Your task to perform on an android device: show emergency info Image 0: 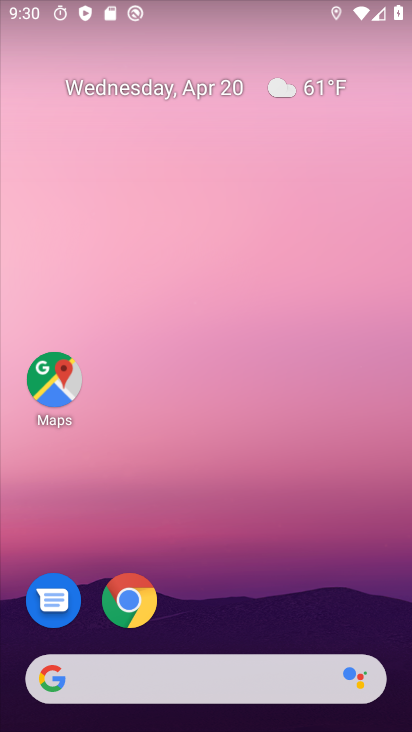
Step 0: drag from (378, 635) to (403, 4)
Your task to perform on an android device: show emergency info Image 1: 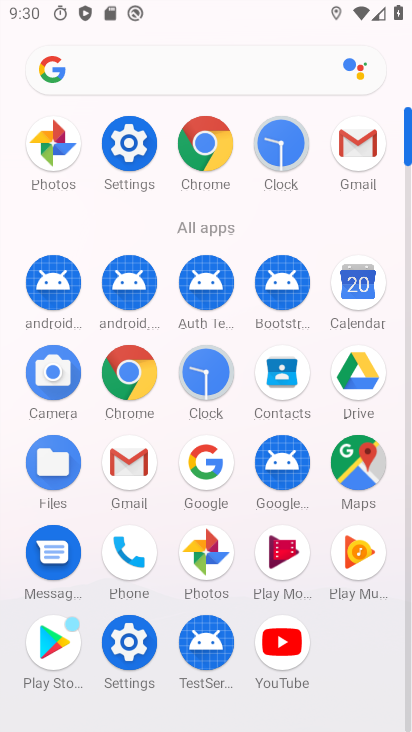
Step 1: click (127, 152)
Your task to perform on an android device: show emergency info Image 2: 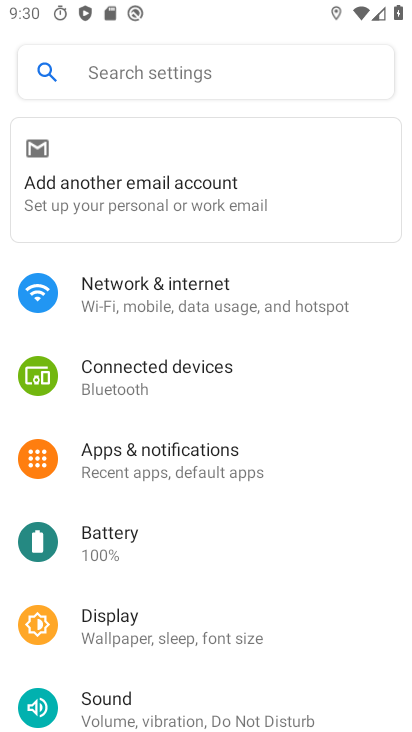
Step 2: drag from (309, 490) to (317, 71)
Your task to perform on an android device: show emergency info Image 3: 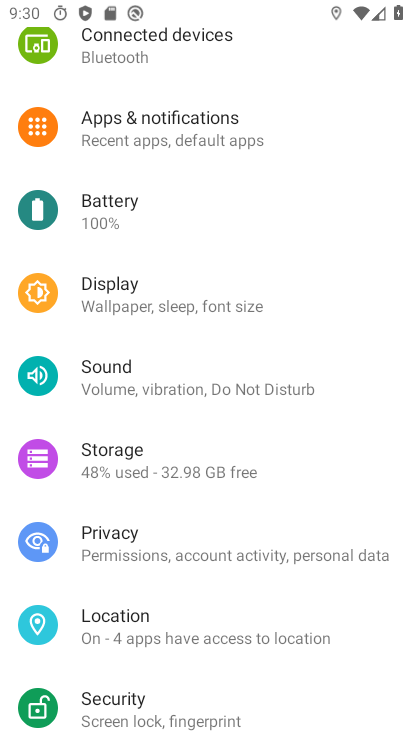
Step 3: drag from (372, 474) to (346, 26)
Your task to perform on an android device: show emergency info Image 4: 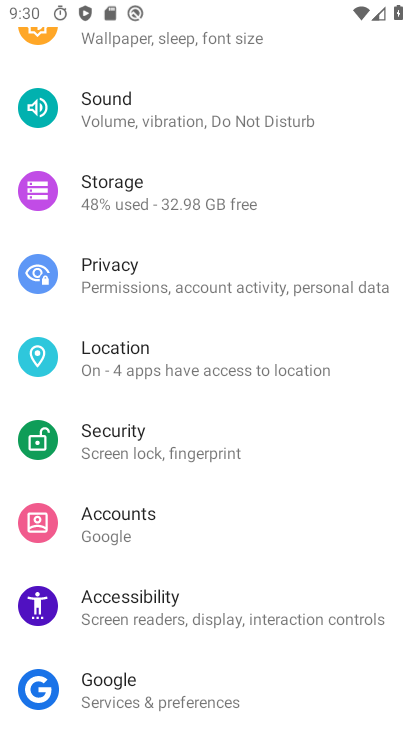
Step 4: drag from (341, 538) to (345, 136)
Your task to perform on an android device: show emergency info Image 5: 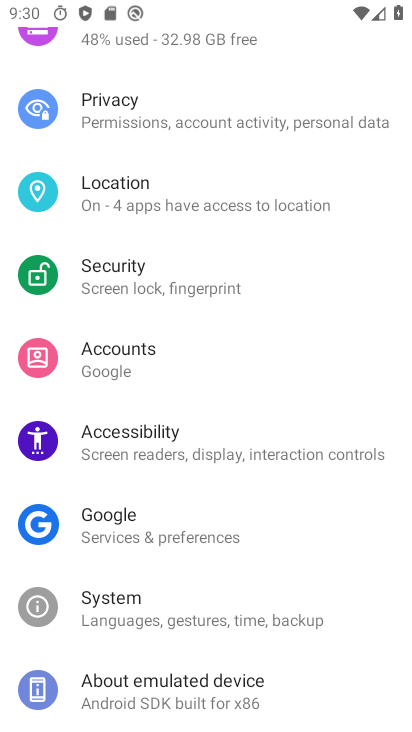
Step 5: click (128, 691)
Your task to perform on an android device: show emergency info Image 6: 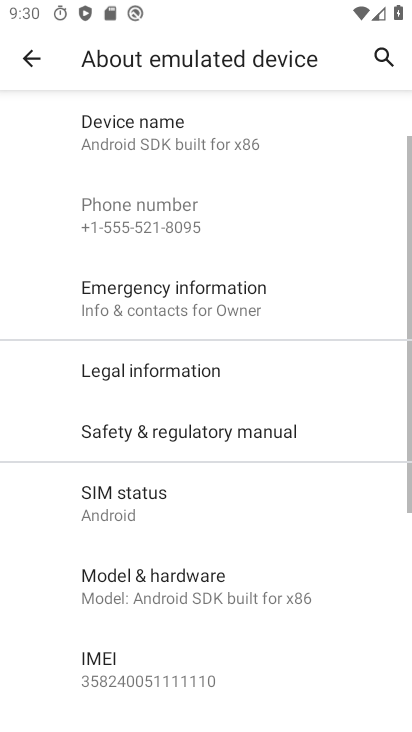
Step 6: click (157, 301)
Your task to perform on an android device: show emergency info Image 7: 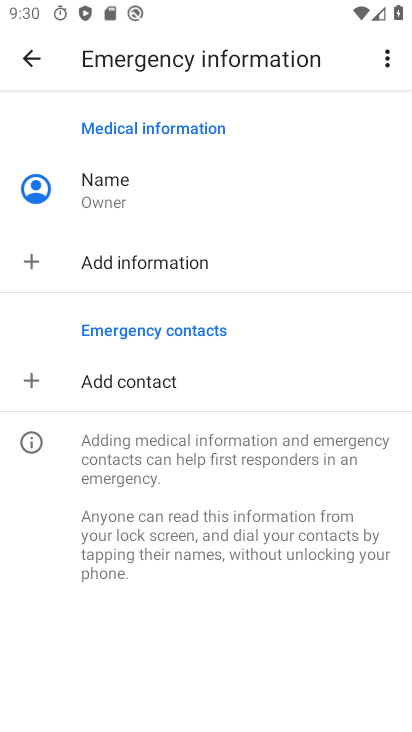
Step 7: task complete